Your task to perform on an android device: See recent photos Image 0: 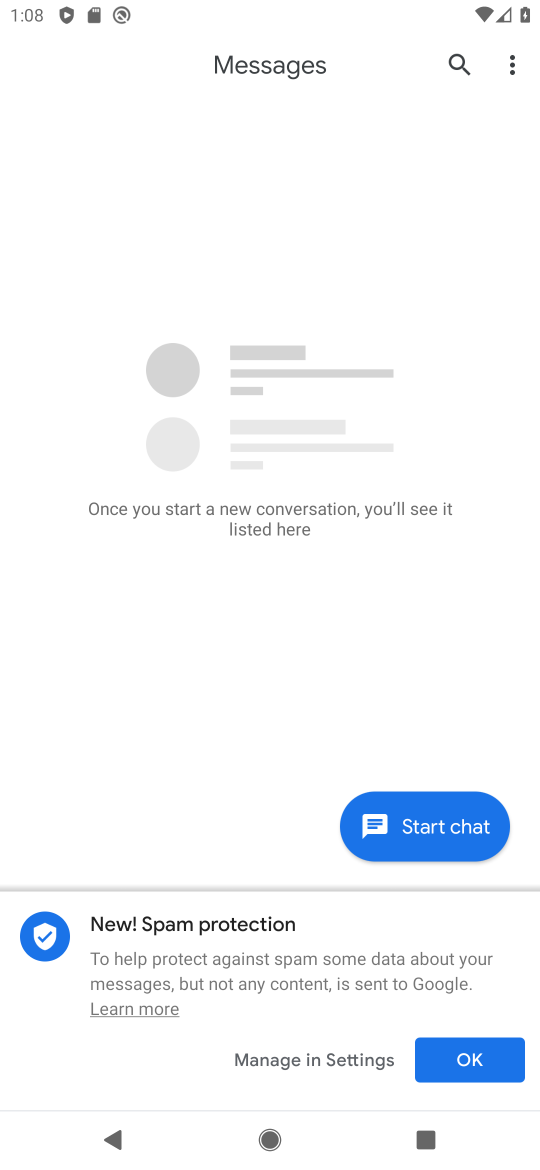
Step 0: press home button
Your task to perform on an android device: See recent photos Image 1: 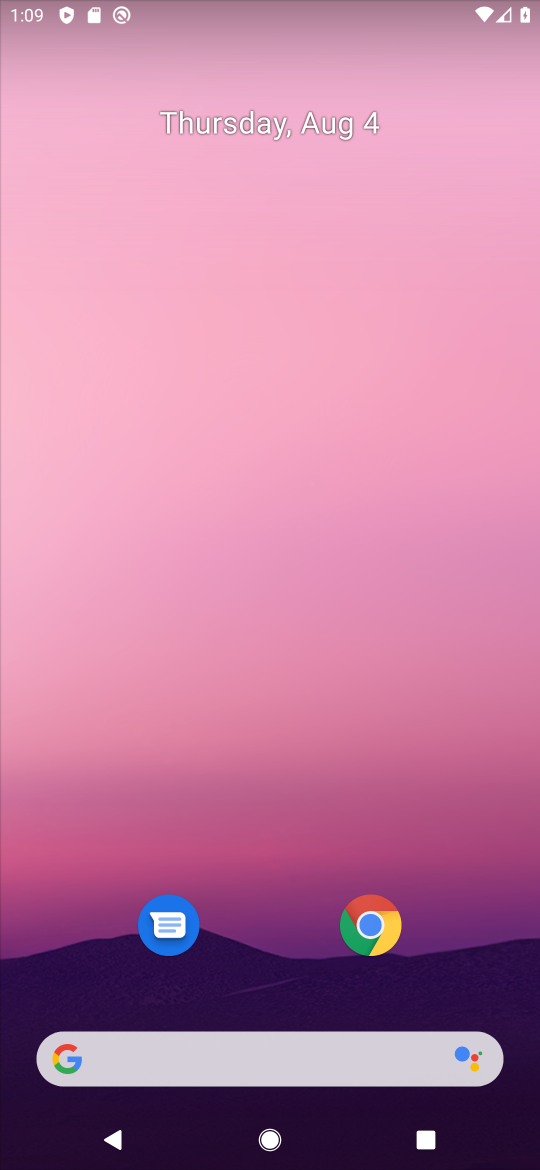
Step 1: drag from (268, 888) to (320, 418)
Your task to perform on an android device: See recent photos Image 2: 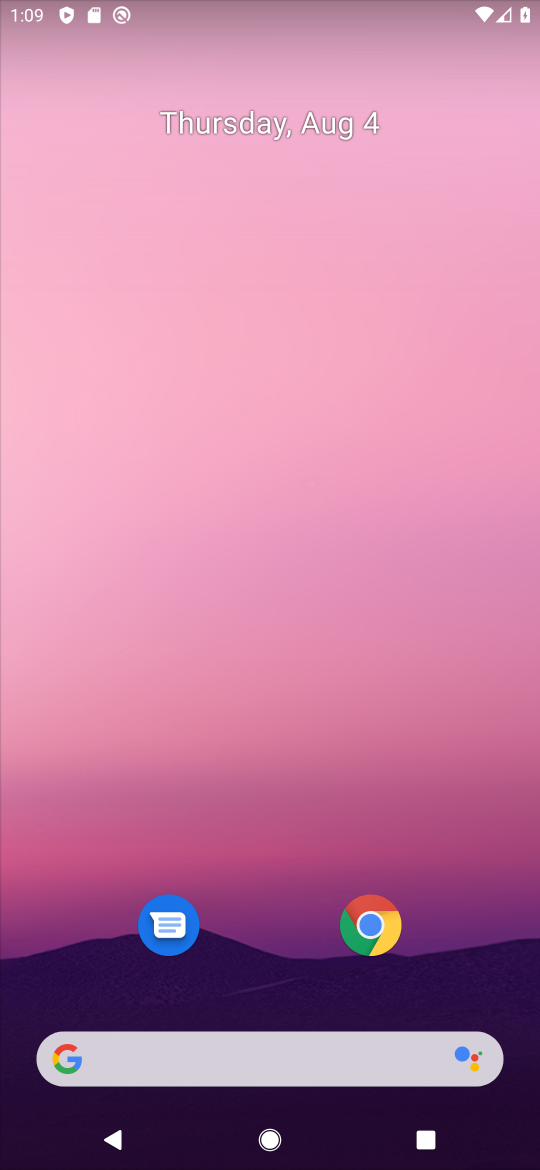
Step 2: drag from (248, 942) to (205, 99)
Your task to perform on an android device: See recent photos Image 3: 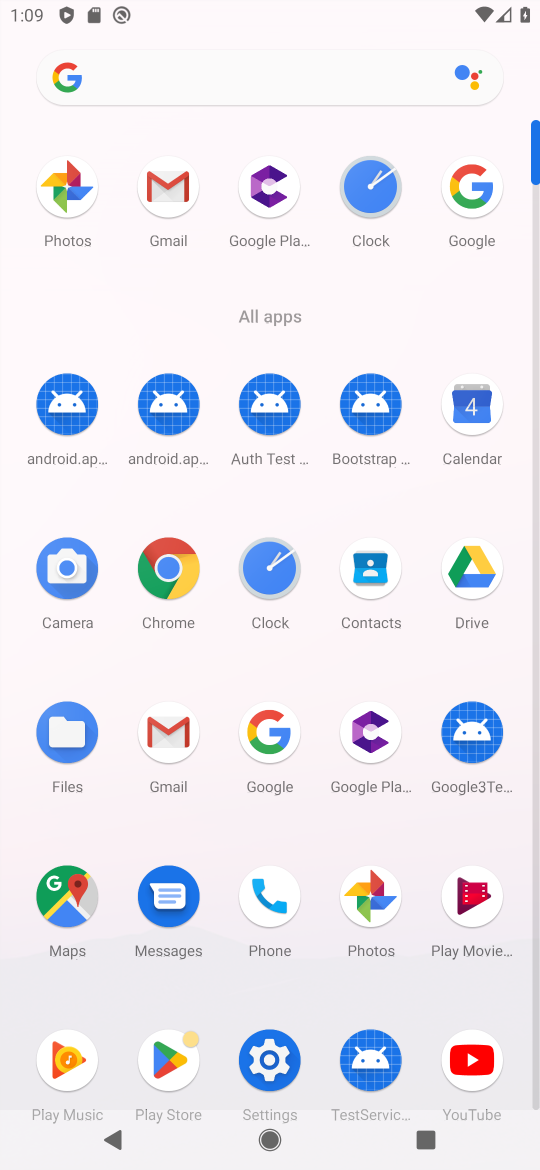
Step 3: click (62, 188)
Your task to perform on an android device: See recent photos Image 4: 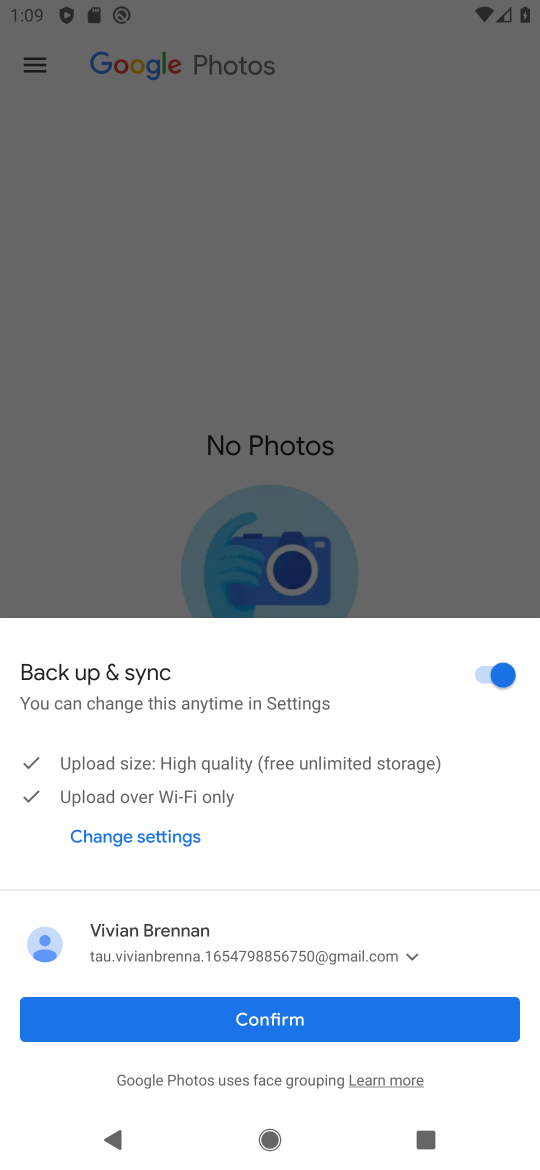
Step 4: click (280, 1014)
Your task to perform on an android device: See recent photos Image 5: 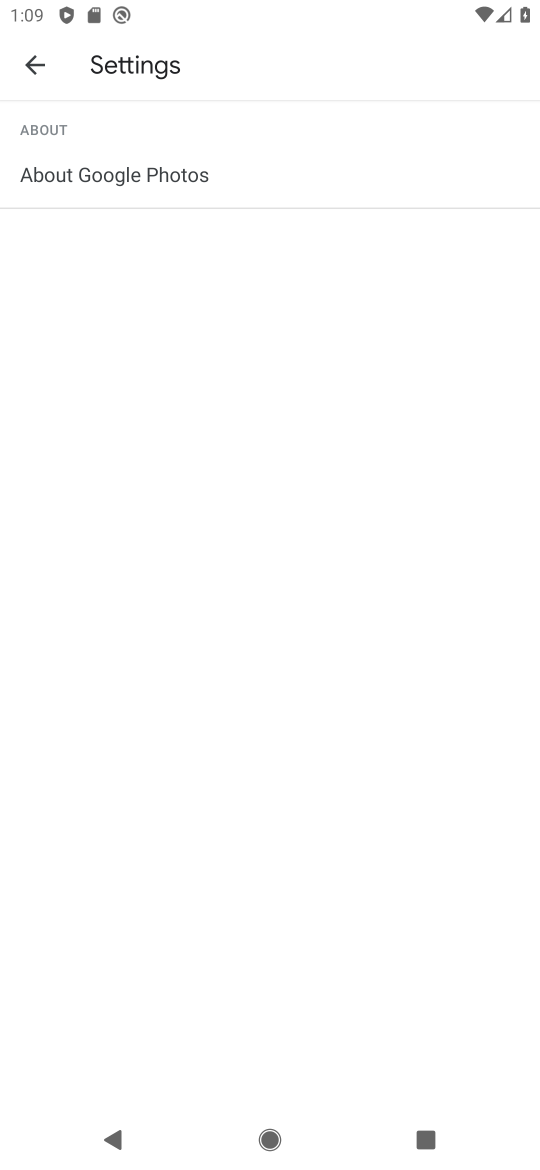
Step 5: click (36, 66)
Your task to perform on an android device: See recent photos Image 6: 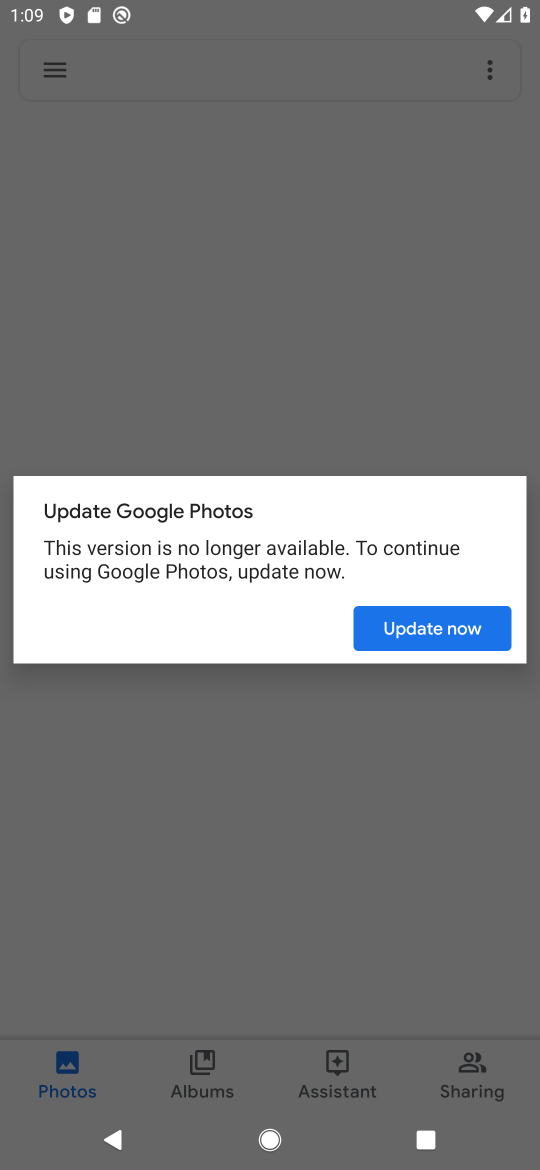
Step 6: click (205, 1071)
Your task to perform on an android device: See recent photos Image 7: 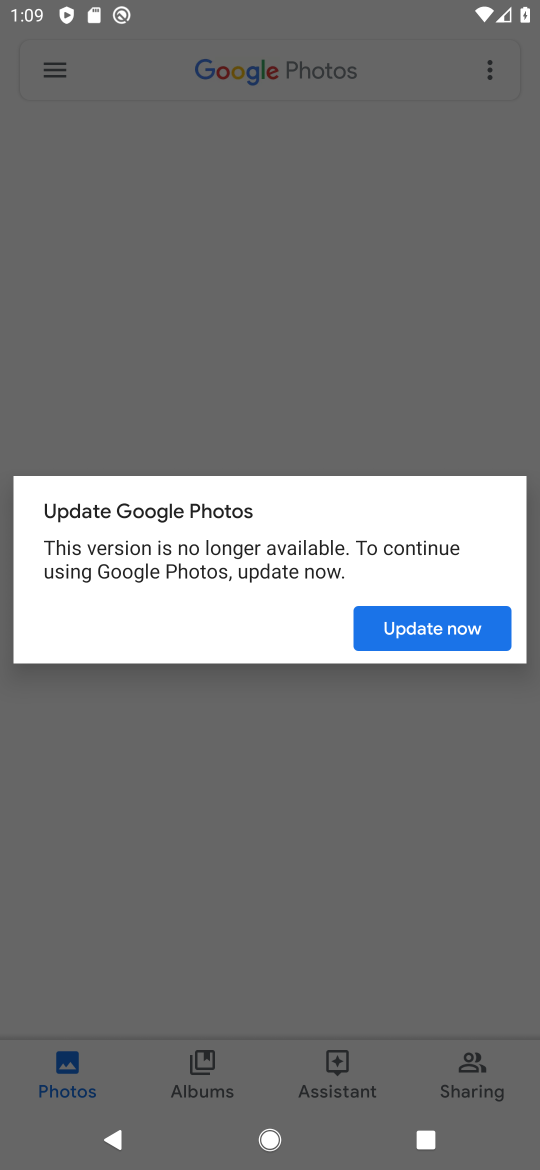
Step 7: click (205, 1071)
Your task to perform on an android device: See recent photos Image 8: 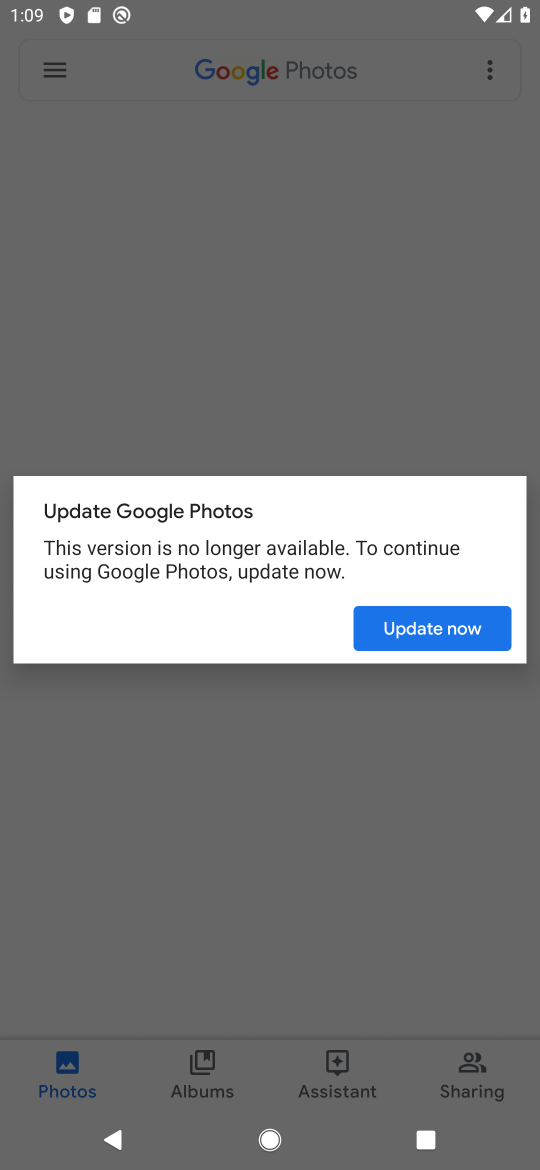
Step 8: task complete